Your task to perform on an android device: Search for sushi restaurants on Maps Image 0: 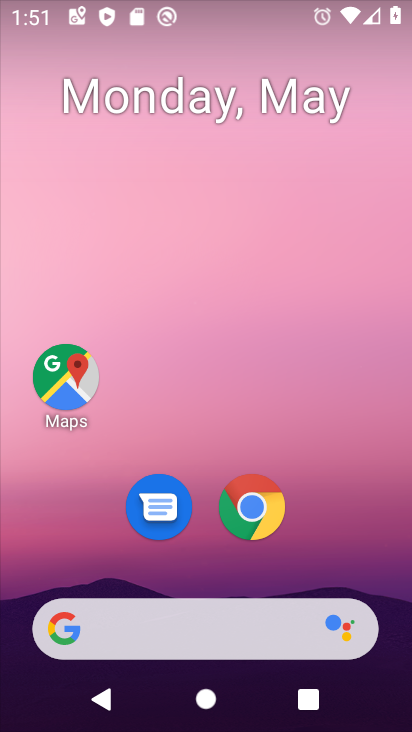
Step 0: drag from (228, 730) to (206, 22)
Your task to perform on an android device: Search for sushi restaurants on Maps Image 1: 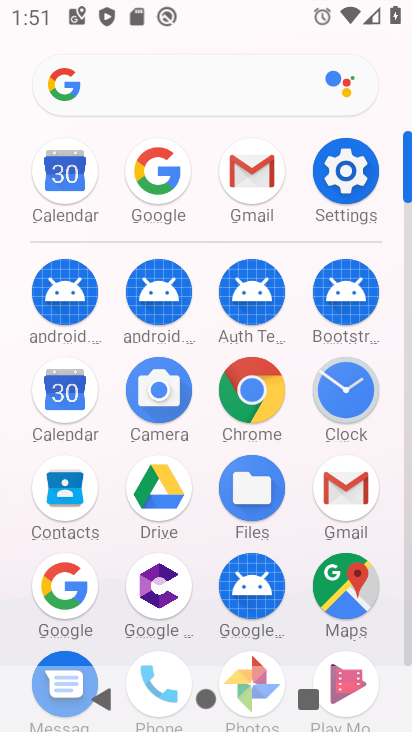
Step 1: click (339, 584)
Your task to perform on an android device: Search for sushi restaurants on Maps Image 2: 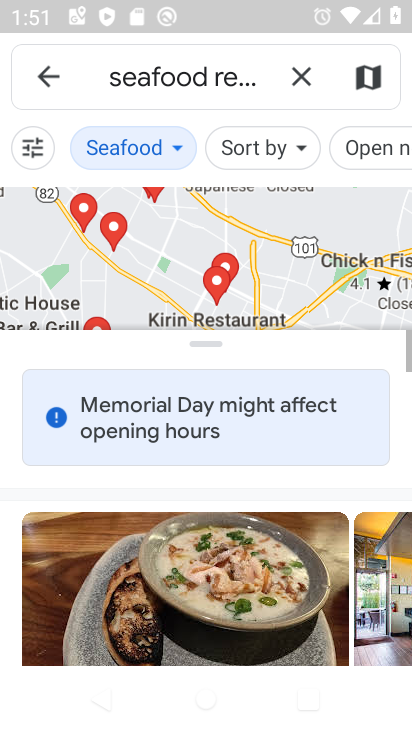
Step 2: click (295, 72)
Your task to perform on an android device: Search for sushi restaurants on Maps Image 3: 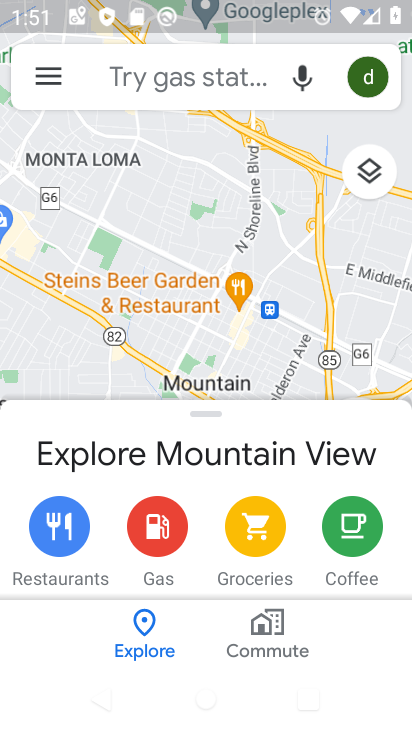
Step 3: click (154, 89)
Your task to perform on an android device: Search for sushi restaurants on Maps Image 4: 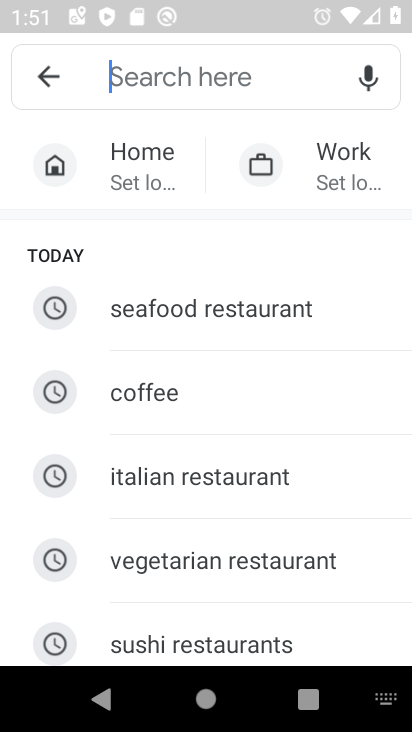
Step 4: type "sushi restaurants"
Your task to perform on an android device: Search for sushi restaurants on Maps Image 5: 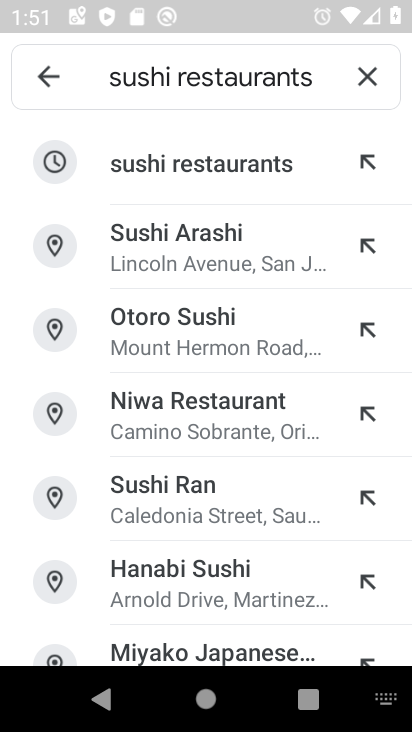
Step 5: click (161, 171)
Your task to perform on an android device: Search for sushi restaurants on Maps Image 6: 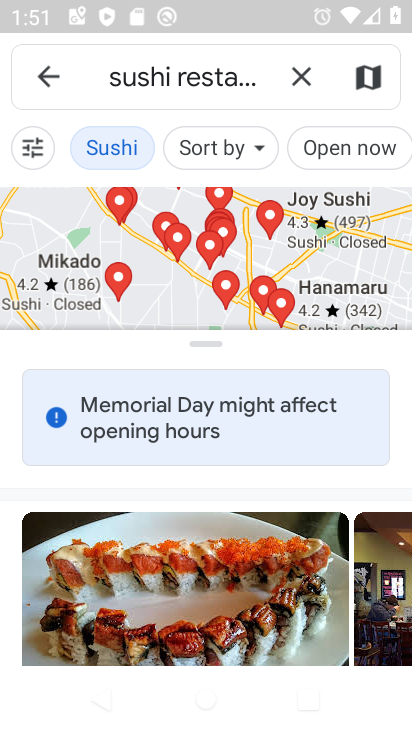
Step 6: task complete